Your task to perform on an android device: turn off location Image 0: 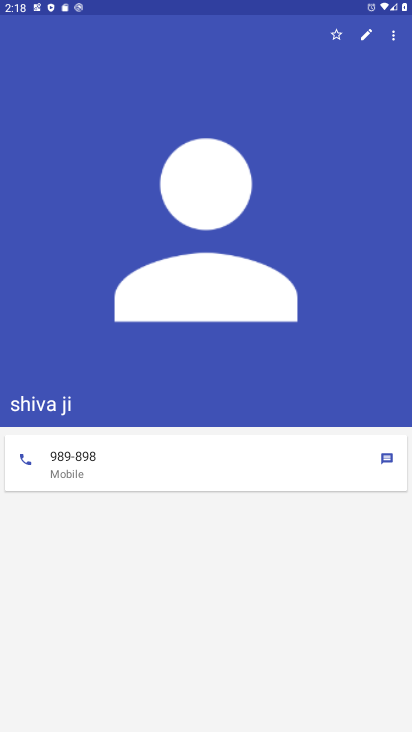
Step 0: press home button
Your task to perform on an android device: turn off location Image 1: 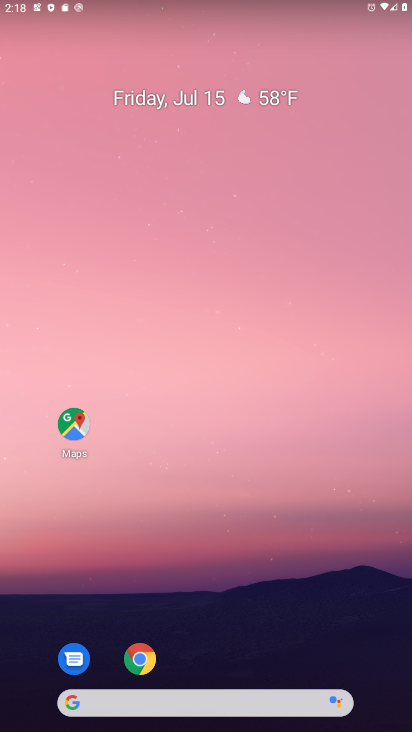
Step 1: drag from (237, 717) to (236, 257)
Your task to perform on an android device: turn off location Image 2: 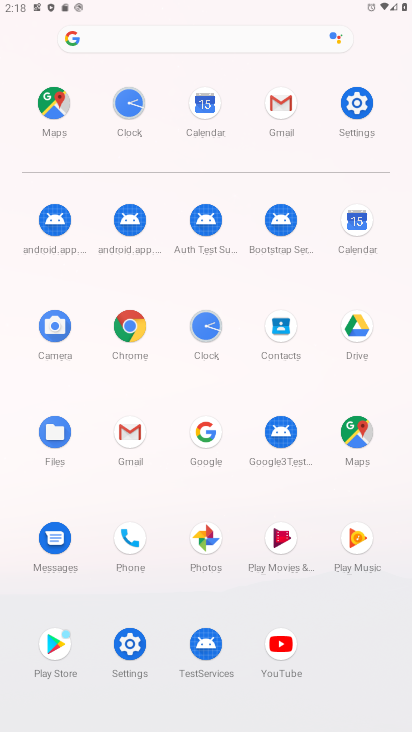
Step 2: click (349, 113)
Your task to perform on an android device: turn off location Image 3: 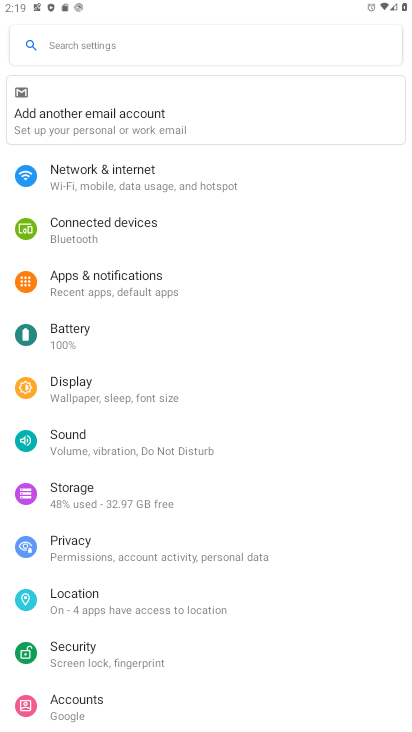
Step 3: click (86, 604)
Your task to perform on an android device: turn off location Image 4: 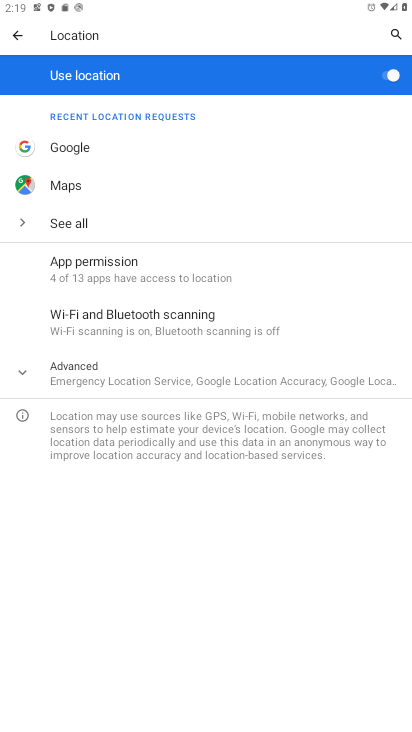
Step 4: click (382, 73)
Your task to perform on an android device: turn off location Image 5: 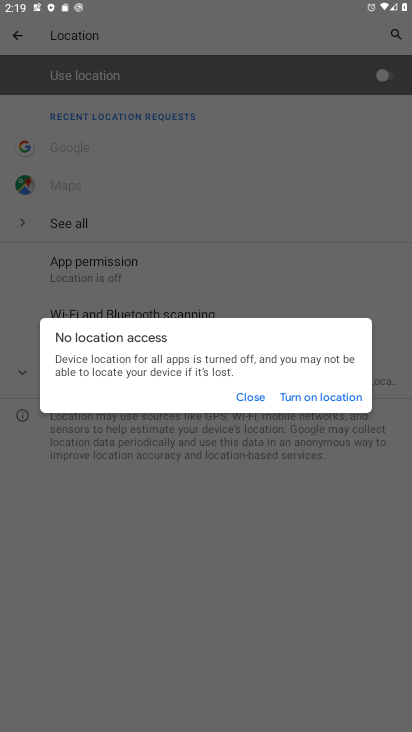
Step 5: task complete